Your task to perform on an android device: Go to notification settings Image 0: 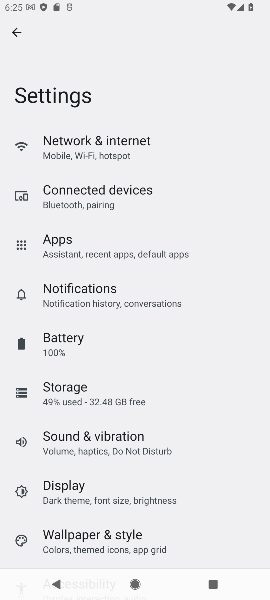
Step 0: click (123, 302)
Your task to perform on an android device: Go to notification settings Image 1: 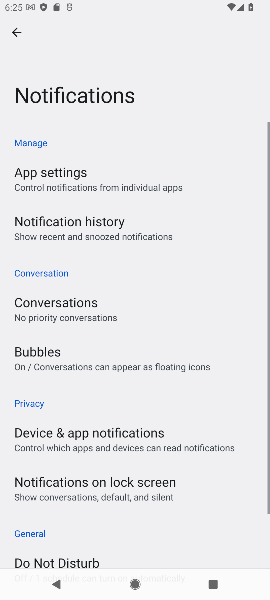
Step 1: click (95, 293)
Your task to perform on an android device: Go to notification settings Image 2: 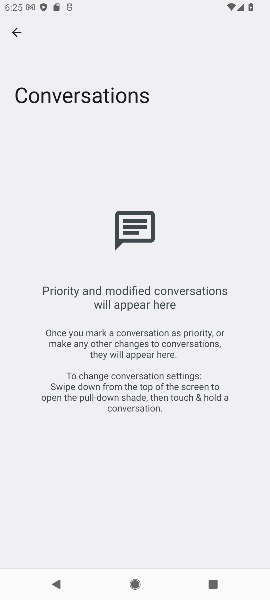
Step 2: click (17, 33)
Your task to perform on an android device: Go to notification settings Image 3: 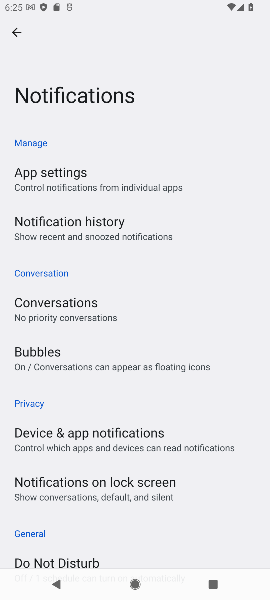
Step 3: task complete